Your task to perform on an android device: Find coffee shops on Maps Image 0: 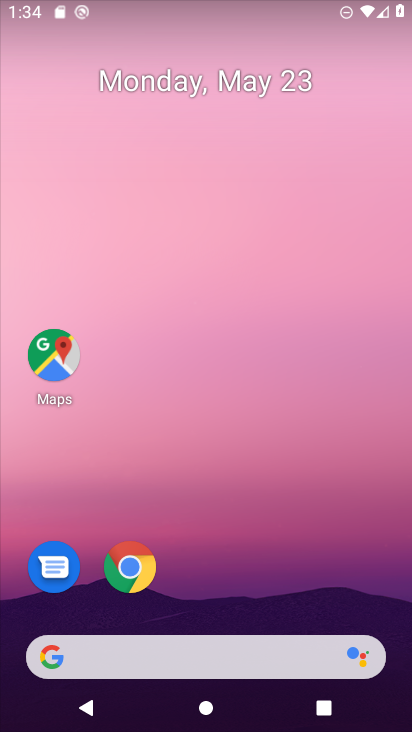
Step 0: press home button
Your task to perform on an android device: Find coffee shops on Maps Image 1: 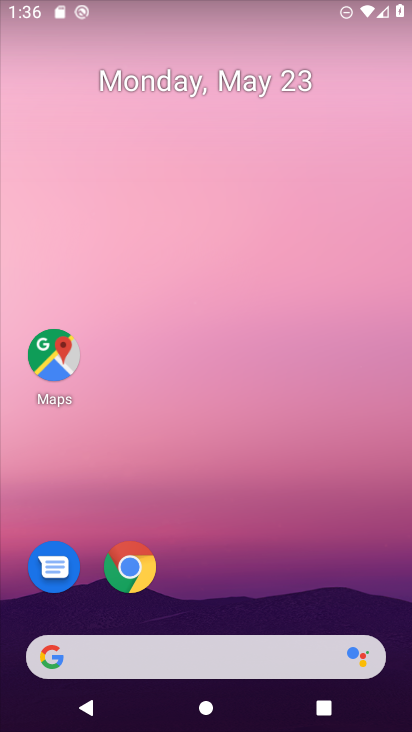
Step 1: click (62, 354)
Your task to perform on an android device: Find coffee shops on Maps Image 2: 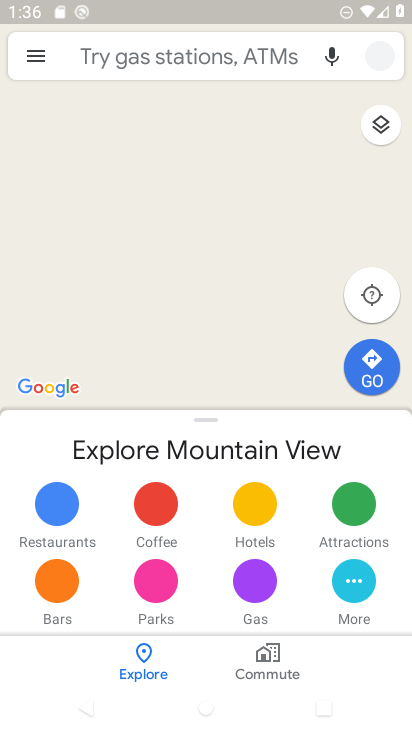
Step 2: click (156, 53)
Your task to perform on an android device: Find coffee shops on Maps Image 3: 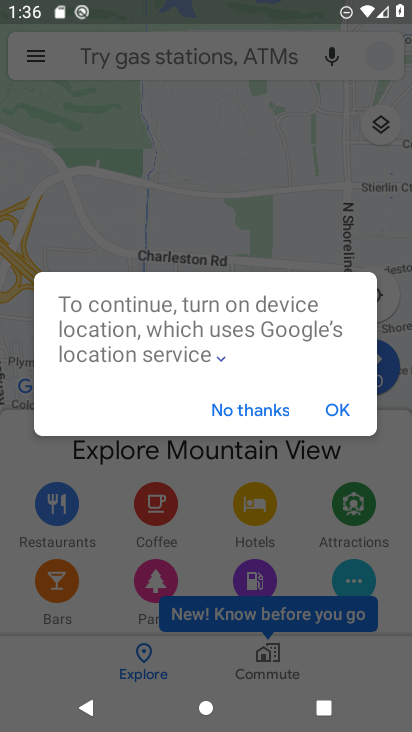
Step 3: click (332, 410)
Your task to perform on an android device: Find coffee shops on Maps Image 4: 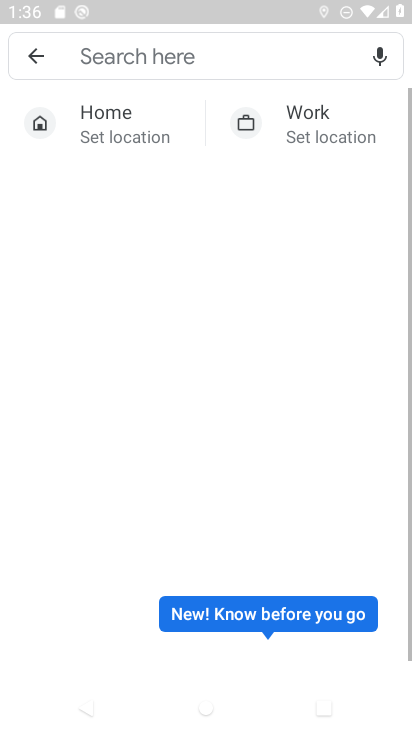
Step 4: click (190, 60)
Your task to perform on an android device: Find coffee shops on Maps Image 5: 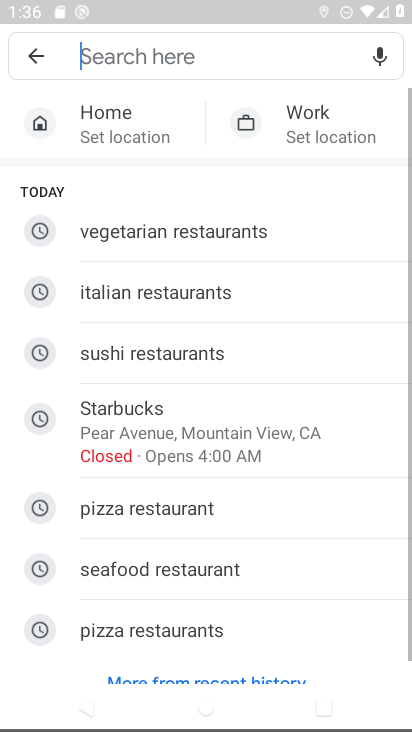
Step 5: click (190, 60)
Your task to perform on an android device: Find coffee shops on Maps Image 6: 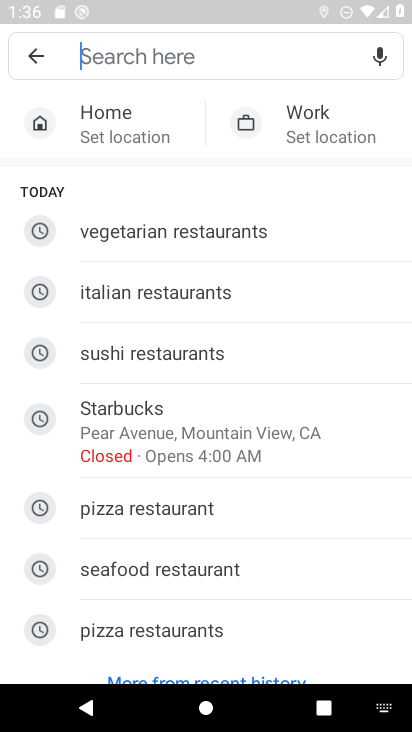
Step 6: type "coffee shops "
Your task to perform on an android device: Find coffee shops on Maps Image 7: 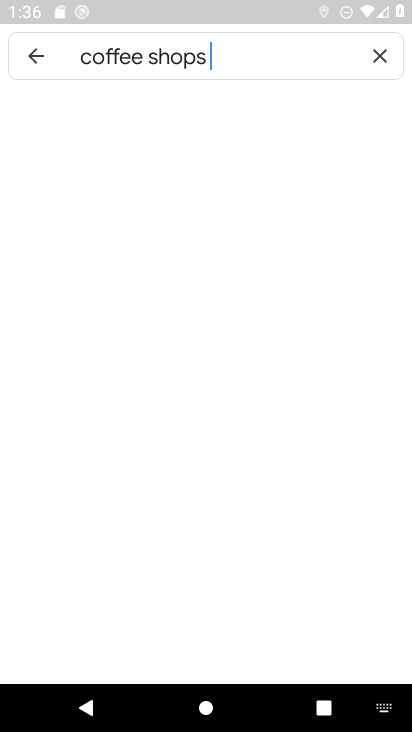
Step 7: type ""
Your task to perform on an android device: Find coffee shops on Maps Image 8: 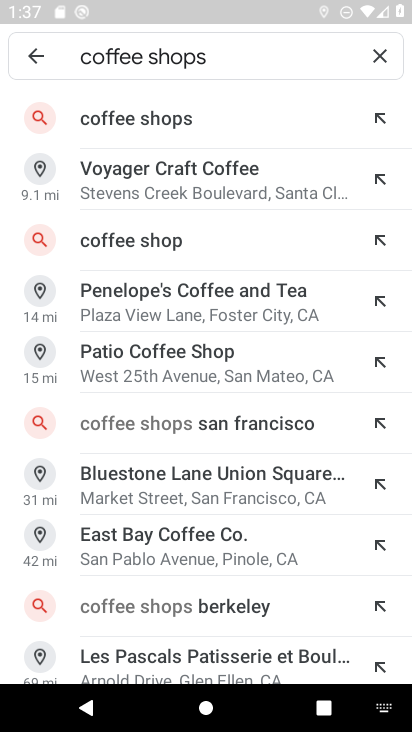
Step 8: click (64, 103)
Your task to perform on an android device: Find coffee shops on Maps Image 9: 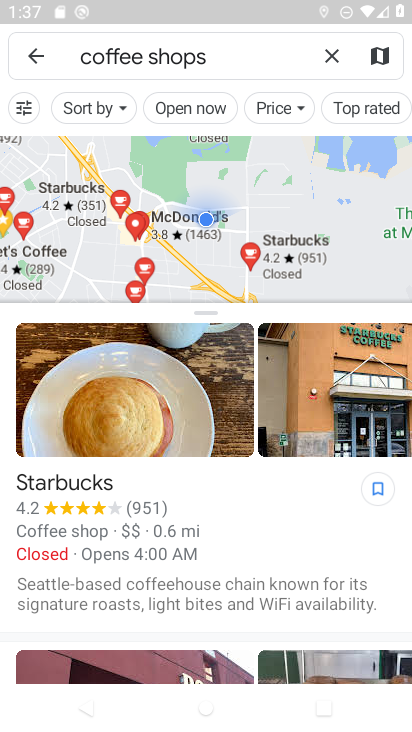
Step 9: task complete